Your task to perform on an android device: Add macbook pro to the cart on newegg.com Image 0: 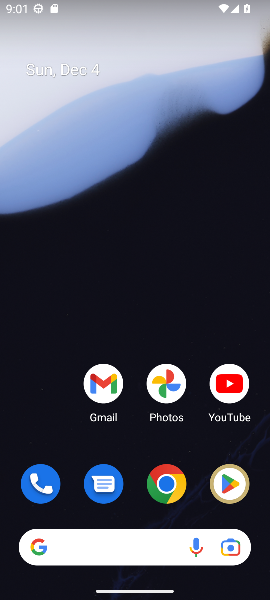
Step 0: click (170, 487)
Your task to perform on an android device: Add macbook pro to the cart on newegg.com Image 1: 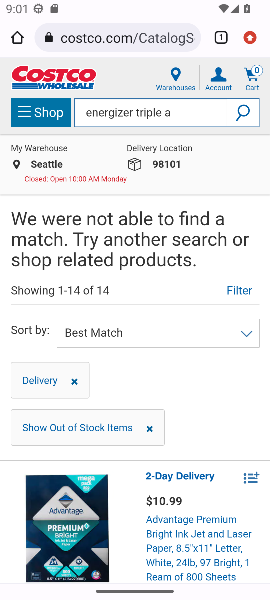
Step 1: click (113, 38)
Your task to perform on an android device: Add macbook pro to the cart on newegg.com Image 2: 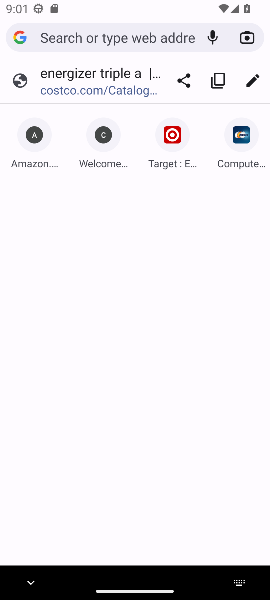
Step 2: click (246, 158)
Your task to perform on an android device: Add macbook pro to the cart on newegg.com Image 3: 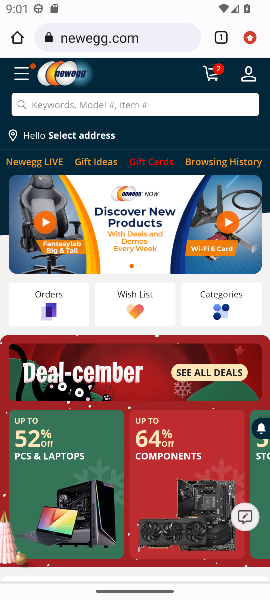
Step 3: click (40, 103)
Your task to perform on an android device: Add macbook pro to the cart on newegg.com Image 4: 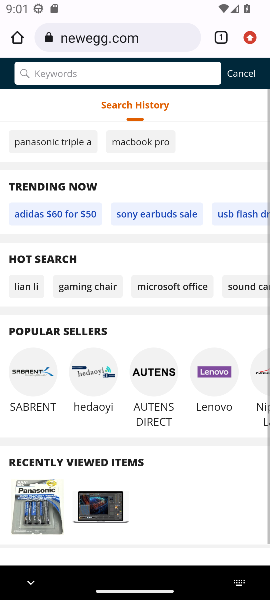
Step 4: type " macbook pro "
Your task to perform on an android device: Add macbook pro to the cart on newegg.com Image 5: 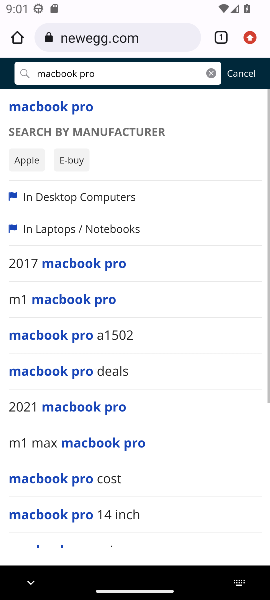
Step 5: click (20, 109)
Your task to perform on an android device: Add macbook pro to the cart on newegg.com Image 6: 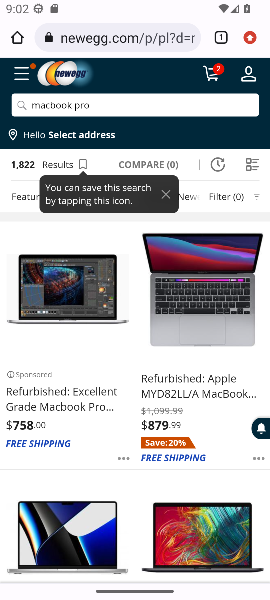
Step 6: click (50, 396)
Your task to perform on an android device: Add macbook pro to the cart on newegg.com Image 7: 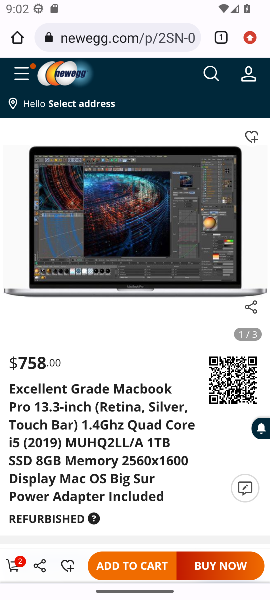
Step 7: click (123, 564)
Your task to perform on an android device: Add macbook pro to the cart on newegg.com Image 8: 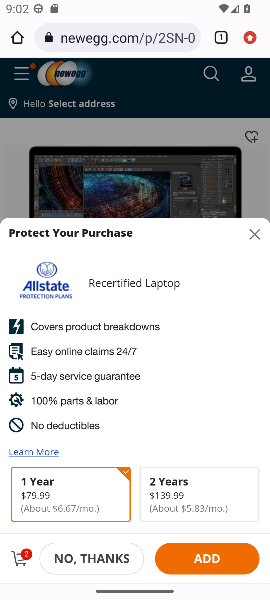
Step 8: task complete